Your task to perform on an android device: toggle translation in the chrome app Image 0: 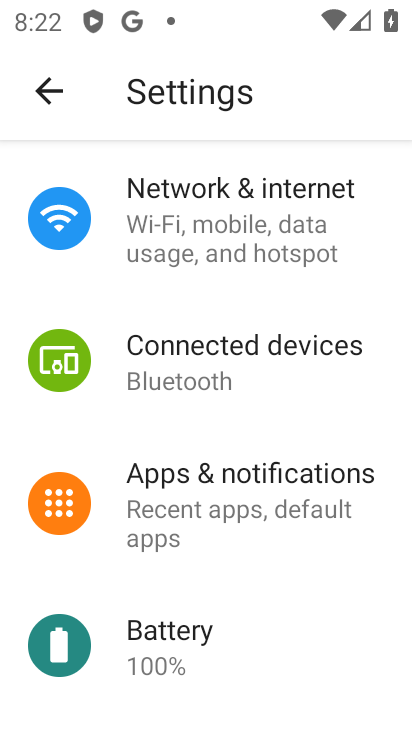
Step 0: press home button
Your task to perform on an android device: toggle translation in the chrome app Image 1: 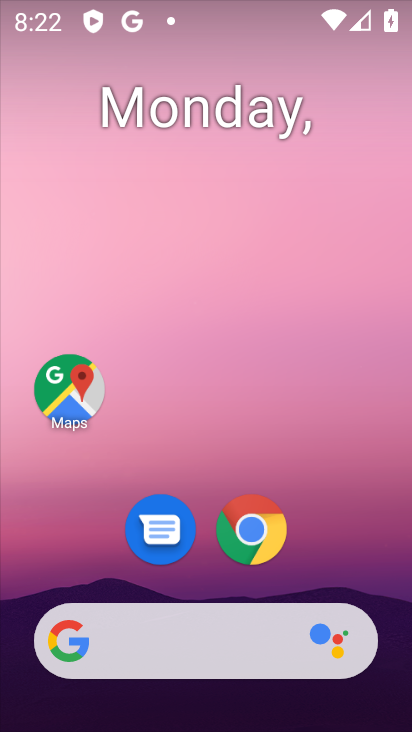
Step 1: drag from (255, 687) to (272, 115)
Your task to perform on an android device: toggle translation in the chrome app Image 2: 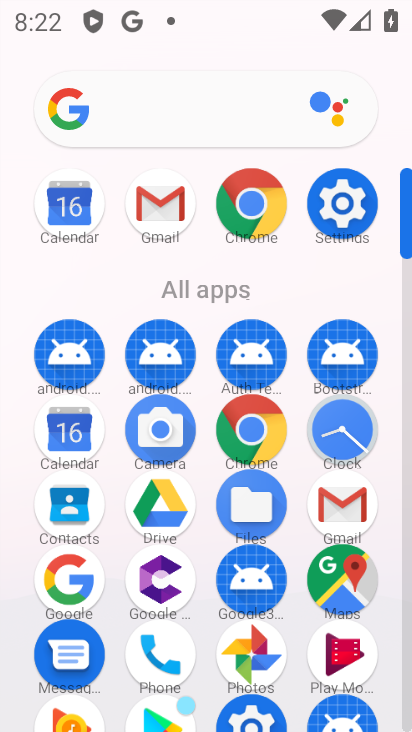
Step 2: click (248, 218)
Your task to perform on an android device: toggle translation in the chrome app Image 3: 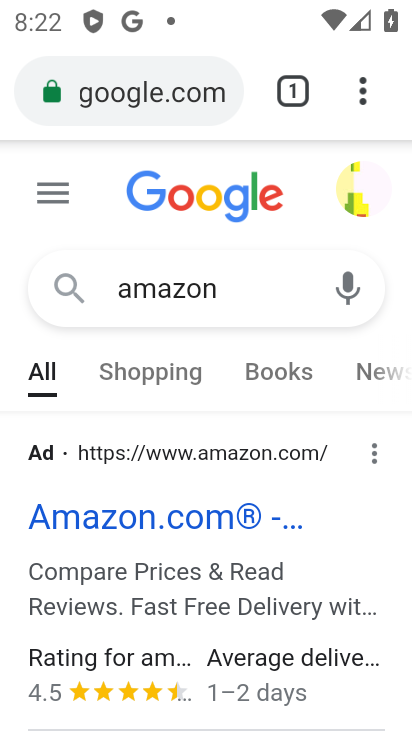
Step 3: click (354, 113)
Your task to perform on an android device: toggle translation in the chrome app Image 4: 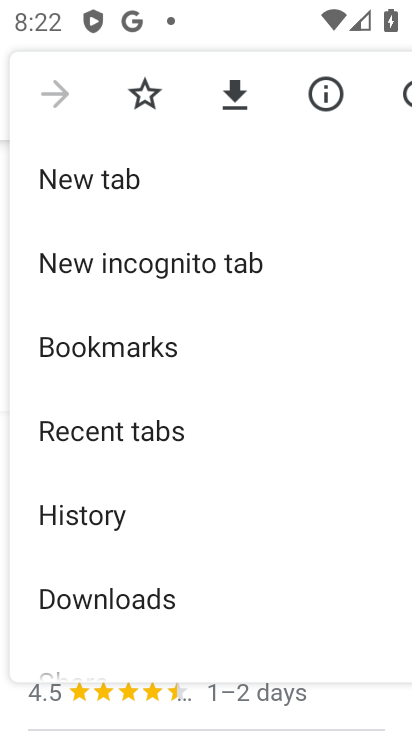
Step 4: drag from (191, 485) to (249, 313)
Your task to perform on an android device: toggle translation in the chrome app Image 5: 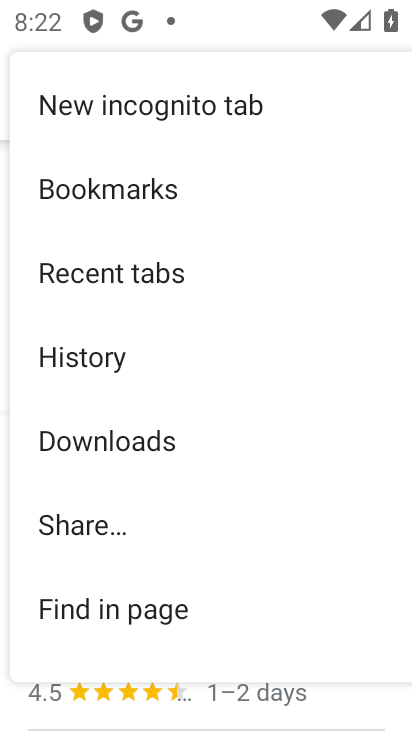
Step 5: drag from (188, 516) to (296, 257)
Your task to perform on an android device: toggle translation in the chrome app Image 6: 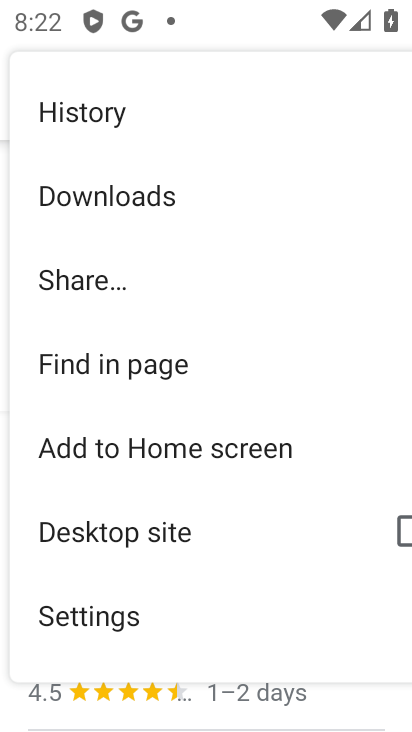
Step 6: click (121, 616)
Your task to perform on an android device: toggle translation in the chrome app Image 7: 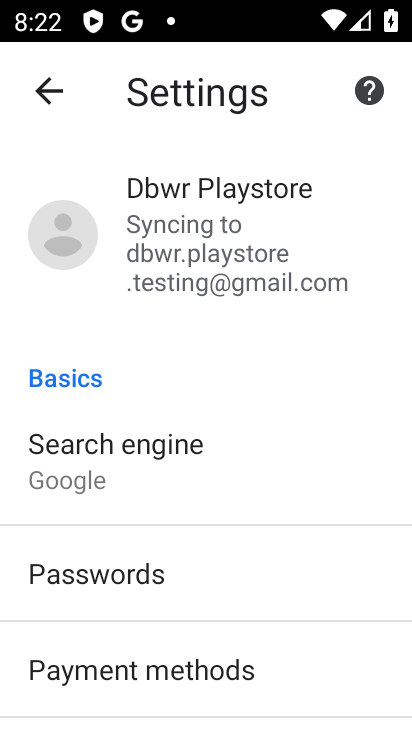
Step 7: drag from (170, 579) to (215, 440)
Your task to perform on an android device: toggle translation in the chrome app Image 8: 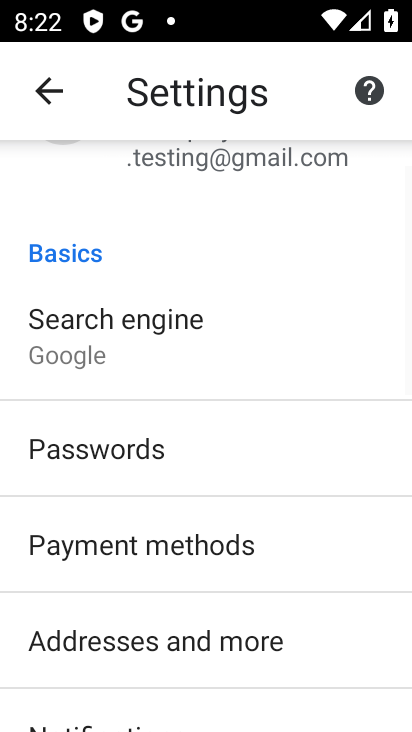
Step 8: drag from (177, 632) to (215, 411)
Your task to perform on an android device: toggle translation in the chrome app Image 9: 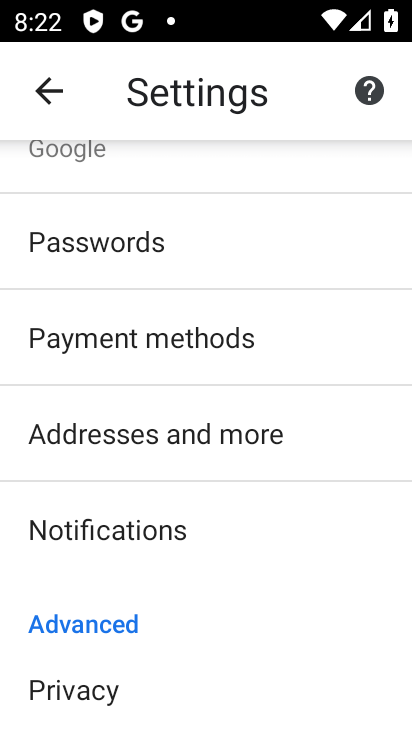
Step 9: drag from (121, 598) to (210, 398)
Your task to perform on an android device: toggle translation in the chrome app Image 10: 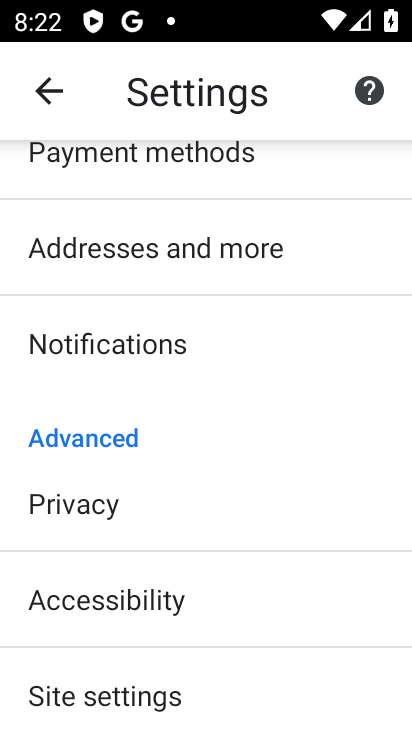
Step 10: drag from (139, 664) to (236, 470)
Your task to perform on an android device: toggle translation in the chrome app Image 11: 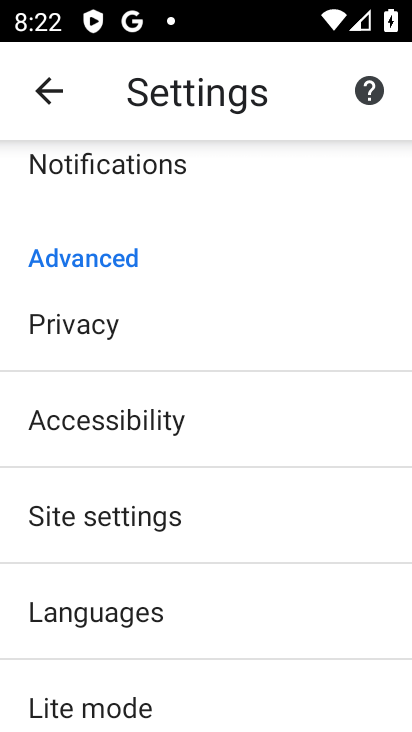
Step 11: click (132, 631)
Your task to perform on an android device: toggle translation in the chrome app Image 12: 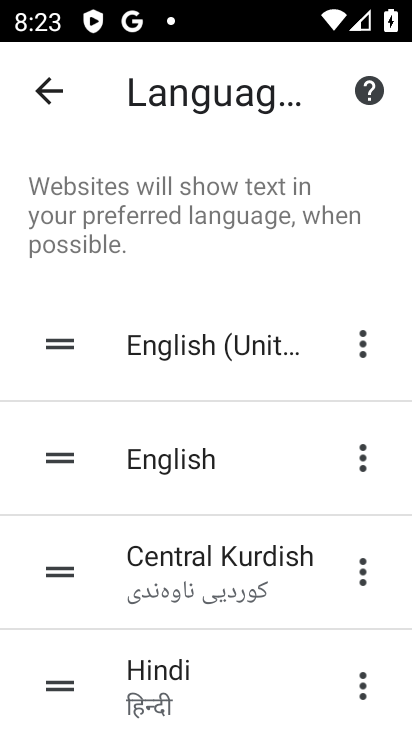
Step 12: click (62, 92)
Your task to perform on an android device: toggle translation in the chrome app Image 13: 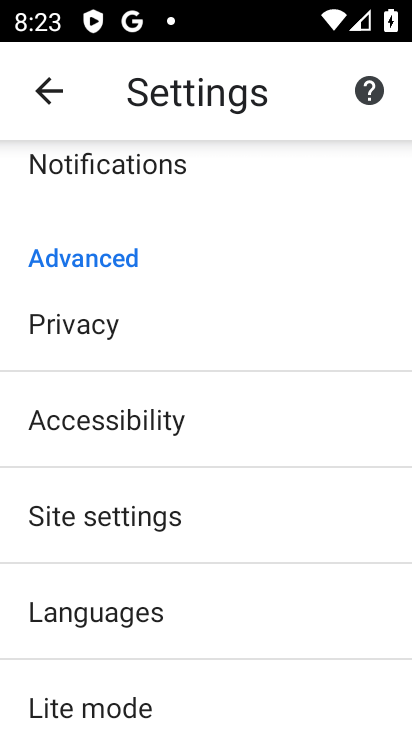
Step 13: click (124, 616)
Your task to perform on an android device: toggle translation in the chrome app Image 14: 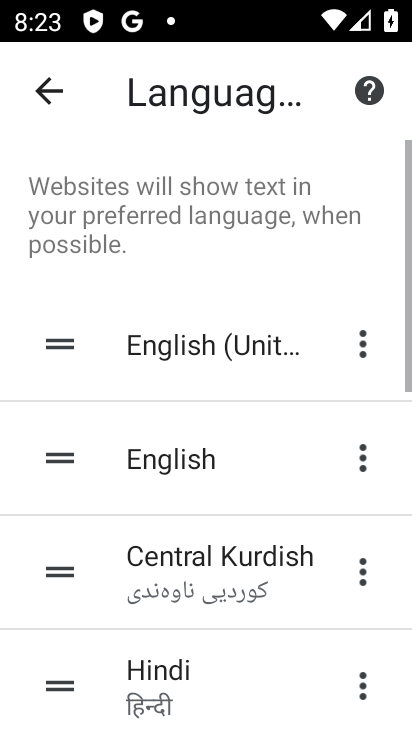
Step 14: task complete